Your task to perform on an android device: Open the calendar app, open the side menu, and click the "Day" option Image 0: 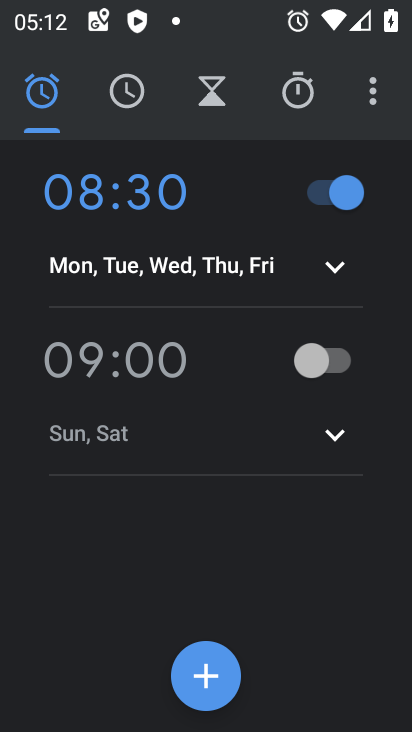
Step 0: drag from (280, 655) to (362, 135)
Your task to perform on an android device: Open the calendar app, open the side menu, and click the "Day" option Image 1: 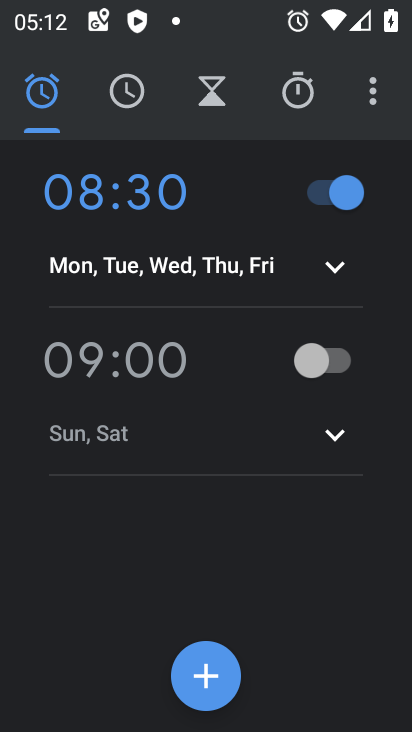
Step 1: press home button
Your task to perform on an android device: Open the calendar app, open the side menu, and click the "Day" option Image 2: 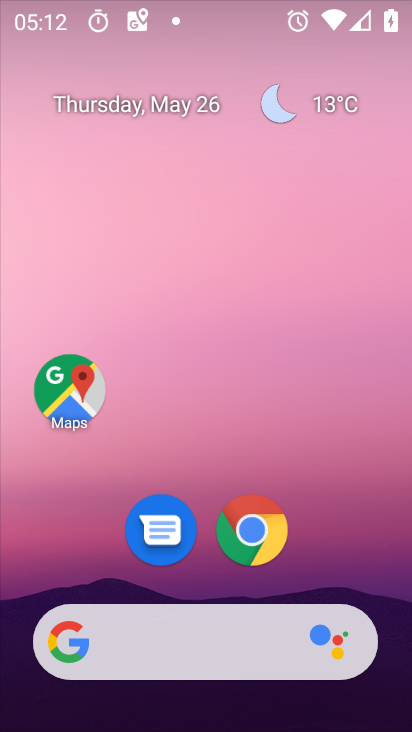
Step 2: drag from (210, 633) to (220, 8)
Your task to perform on an android device: Open the calendar app, open the side menu, and click the "Day" option Image 3: 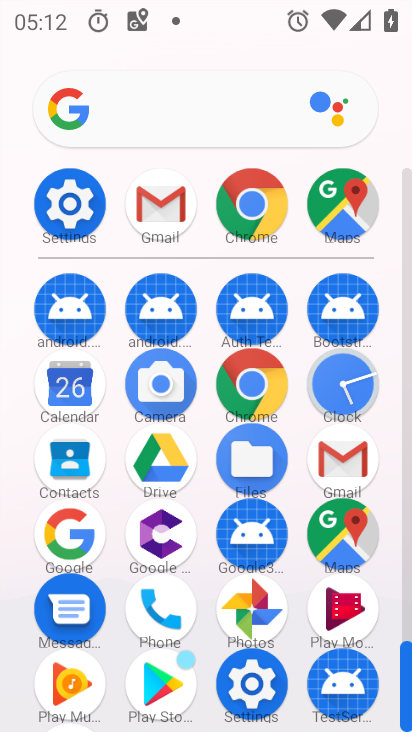
Step 3: click (71, 378)
Your task to perform on an android device: Open the calendar app, open the side menu, and click the "Day" option Image 4: 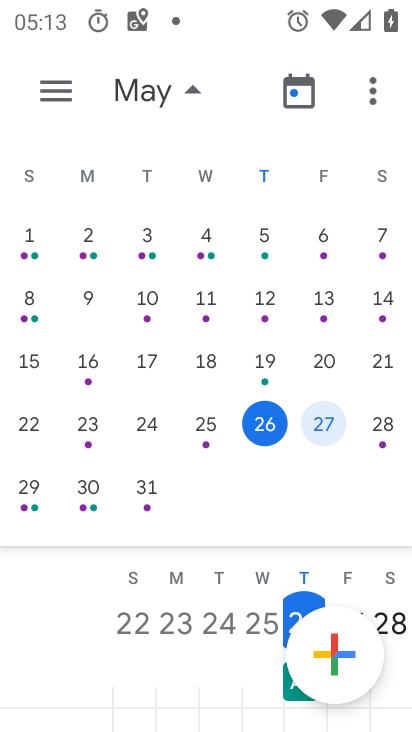
Step 4: click (53, 85)
Your task to perform on an android device: Open the calendar app, open the side menu, and click the "Day" option Image 5: 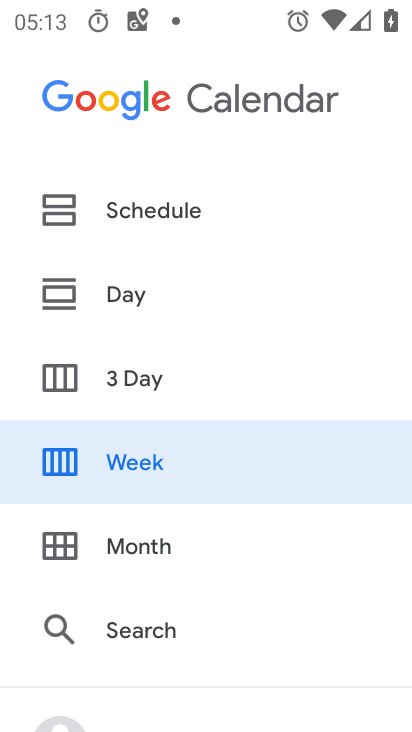
Step 5: click (136, 311)
Your task to perform on an android device: Open the calendar app, open the side menu, and click the "Day" option Image 6: 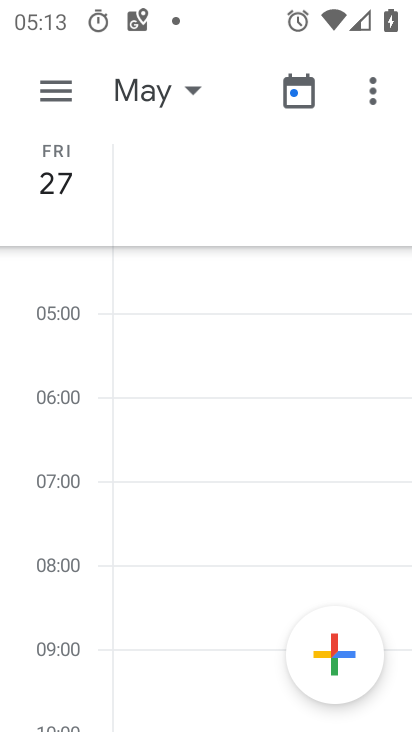
Step 6: task complete